Your task to perform on an android device: find snoozed emails in the gmail app Image 0: 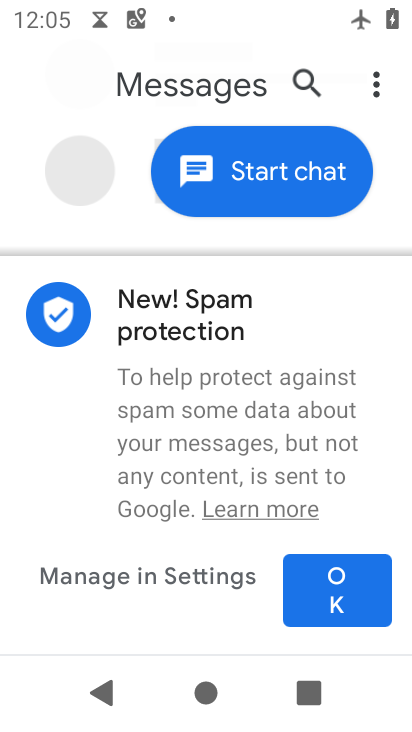
Step 0: press home button
Your task to perform on an android device: find snoozed emails in the gmail app Image 1: 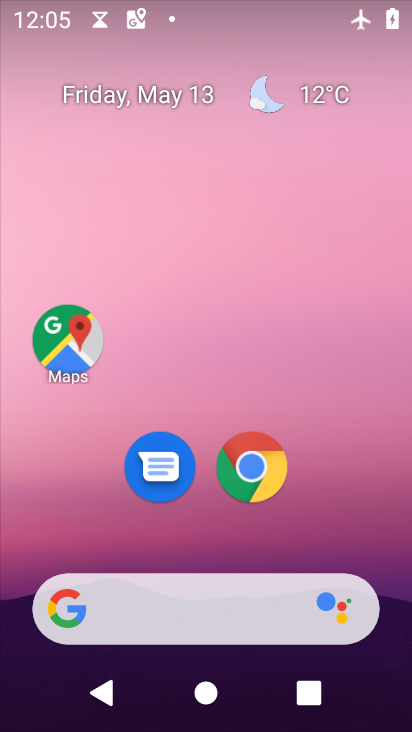
Step 1: drag from (314, 458) to (261, 80)
Your task to perform on an android device: find snoozed emails in the gmail app Image 2: 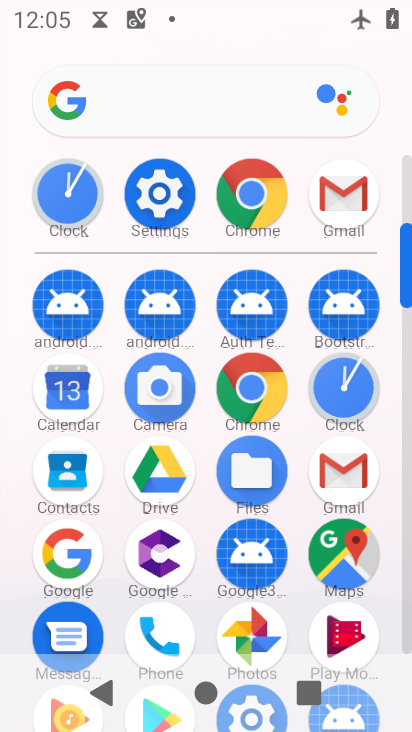
Step 2: click (336, 184)
Your task to perform on an android device: find snoozed emails in the gmail app Image 3: 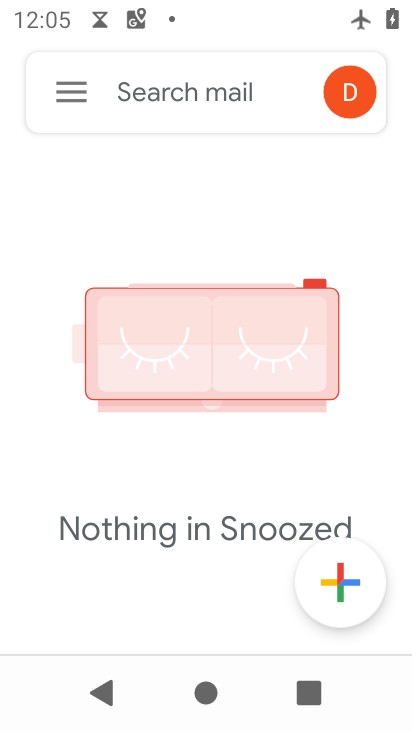
Step 3: click (54, 86)
Your task to perform on an android device: find snoozed emails in the gmail app Image 4: 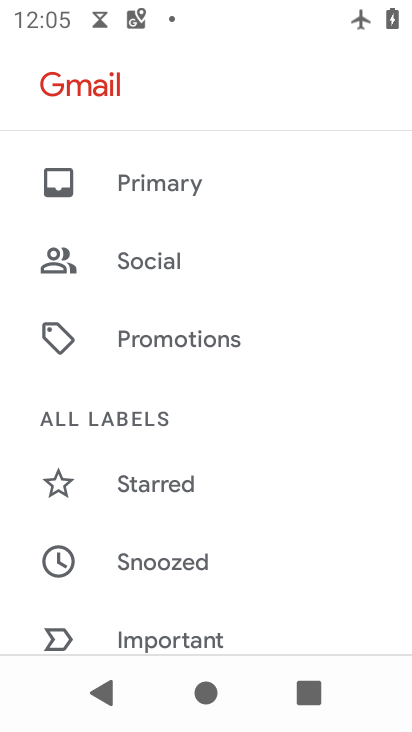
Step 4: click (178, 572)
Your task to perform on an android device: find snoozed emails in the gmail app Image 5: 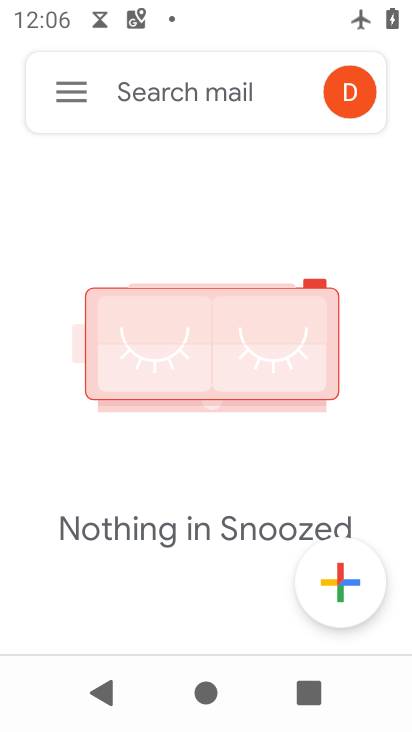
Step 5: task complete